Your task to perform on an android device: Open battery settings Image 0: 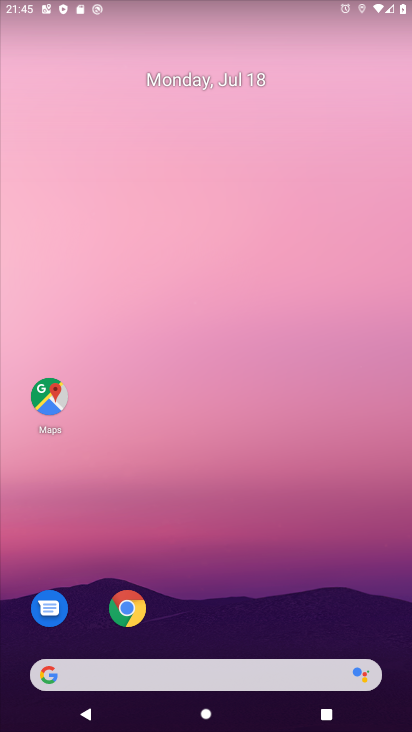
Step 0: drag from (67, 515) to (178, 0)
Your task to perform on an android device: Open battery settings Image 1: 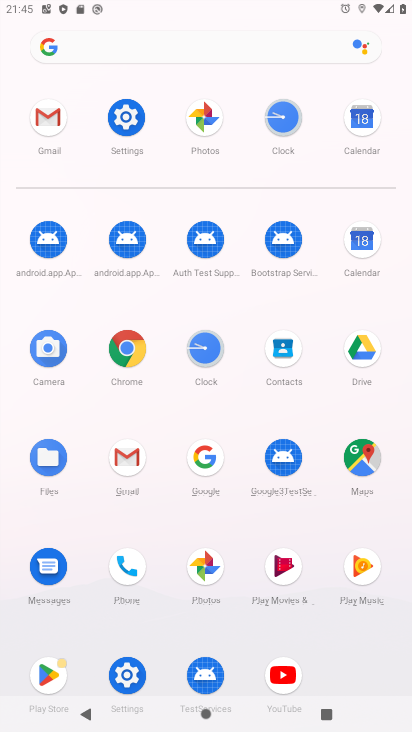
Step 1: click (133, 682)
Your task to perform on an android device: Open battery settings Image 2: 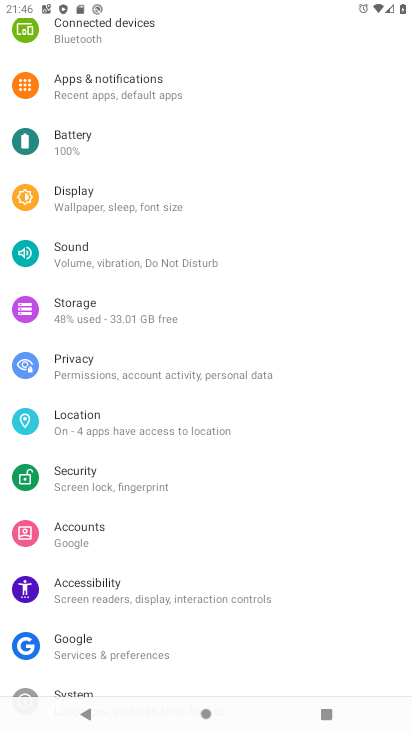
Step 2: click (108, 148)
Your task to perform on an android device: Open battery settings Image 3: 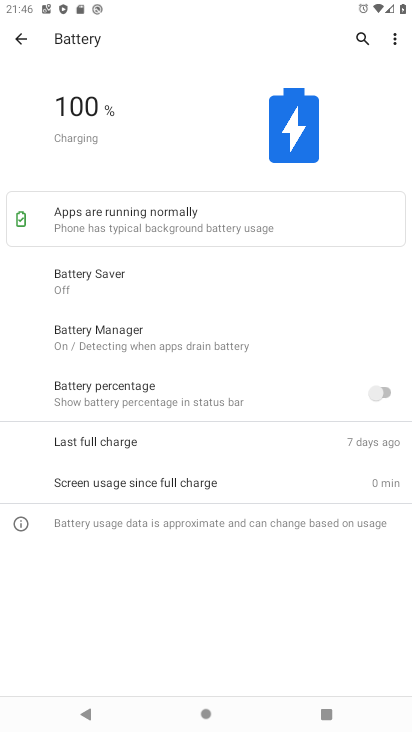
Step 3: task complete